Your task to perform on an android device: Go to display settings Image 0: 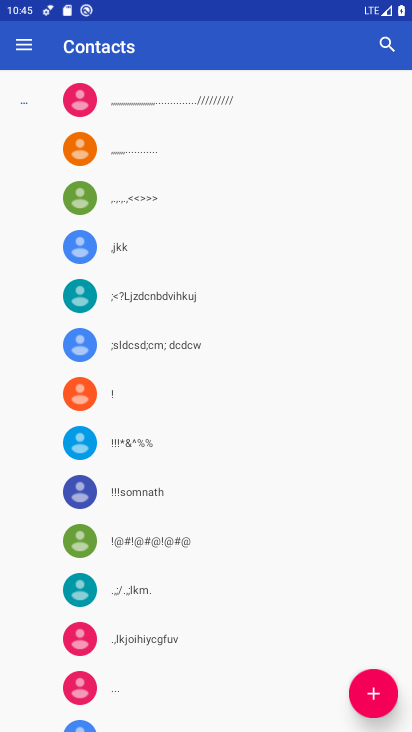
Step 0: press home button
Your task to perform on an android device: Go to display settings Image 1: 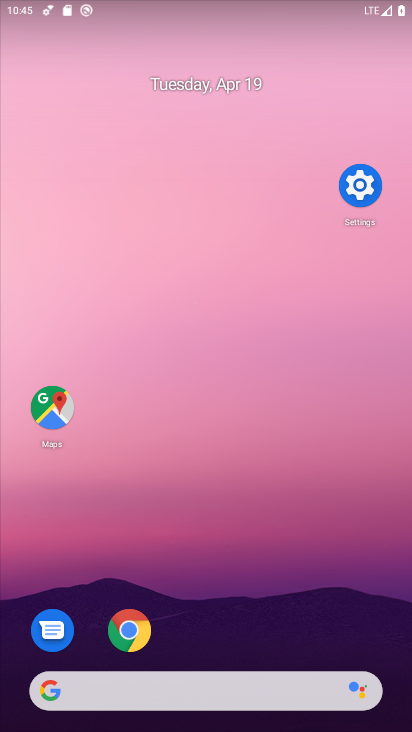
Step 1: drag from (231, 552) to (326, 113)
Your task to perform on an android device: Go to display settings Image 2: 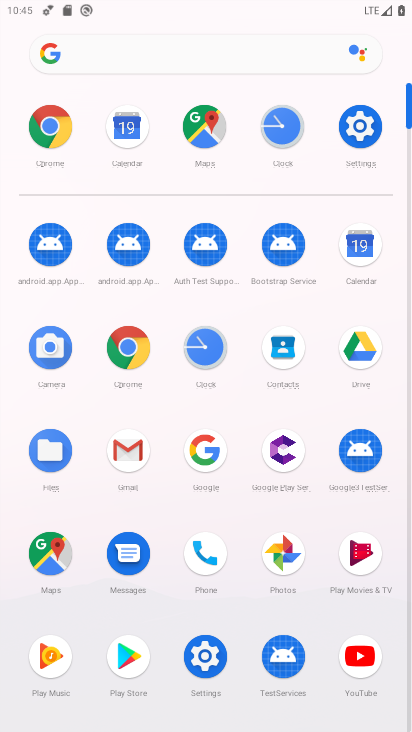
Step 2: click (348, 145)
Your task to perform on an android device: Go to display settings Image 3: 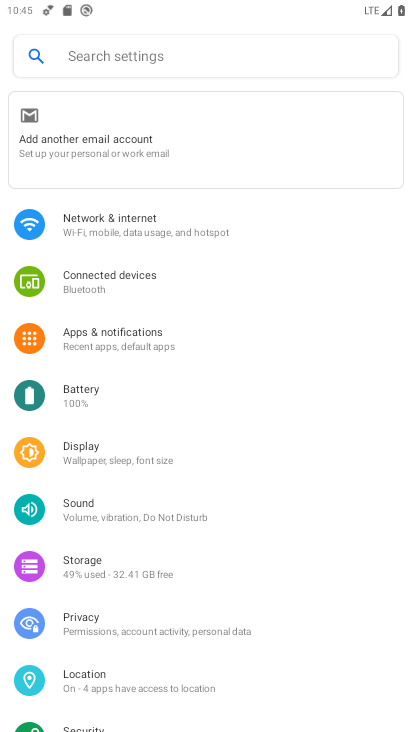
Step 3: click (124, 457)
Your task to perform on an android device: Go to display settings Image 4: 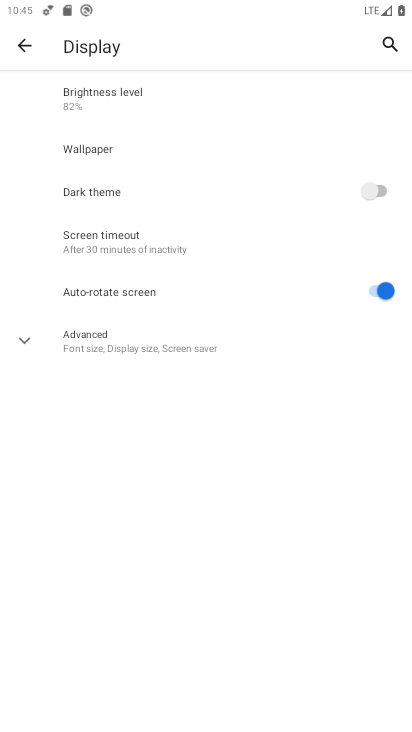
Step 4: click (173, 347)
Your task to perform on an android device: Go to display settings Image 5: 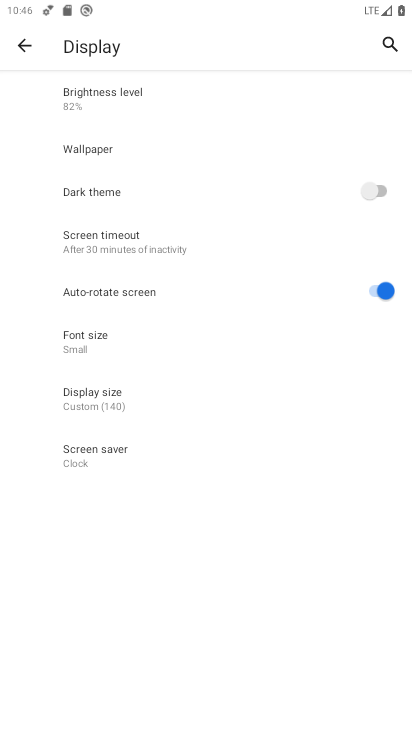
Step 5: task complete